Your task to perform on an android device: snooze an email in the gmail app Image 0: 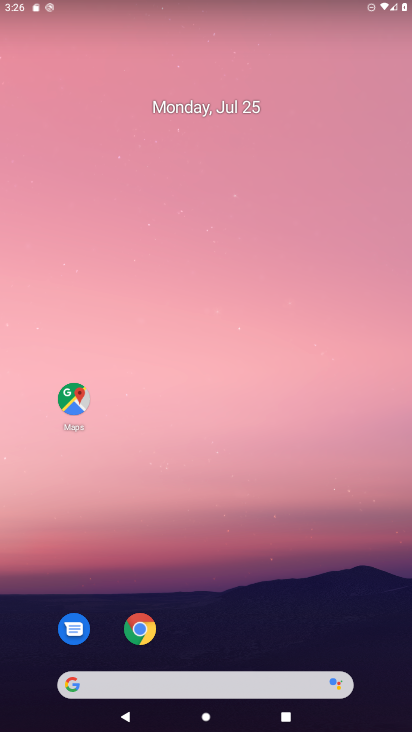
Step 0: click (334, 191)
Your task to perform on an android device: snooze an email in the gmail app Image 1: 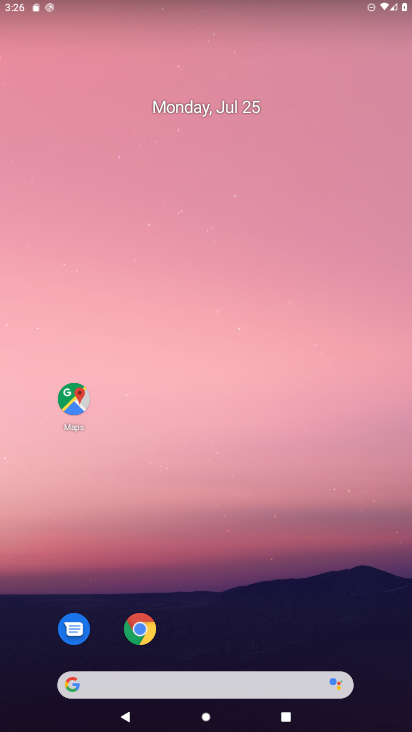
Step 1: drag from (295, 557) to (288, 10)
Your task to perform on an android device: snooze an email in the gmail app Image 2: 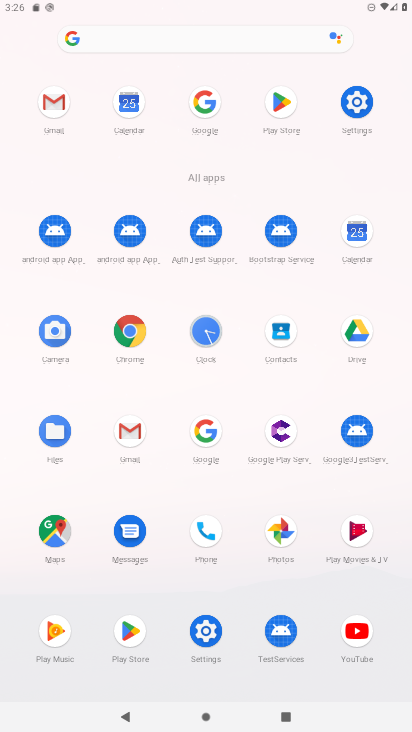
Step 2: click (51, 99)
Your task to perform on an android device: snooze an email in the gmail app Image 3: 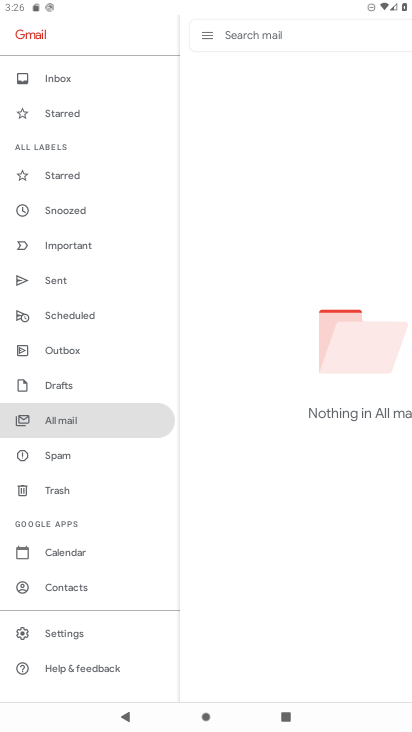
Step 3: click (97, 427)
Your task to perform on an android device: snooze an email in the gmail app Image 4: 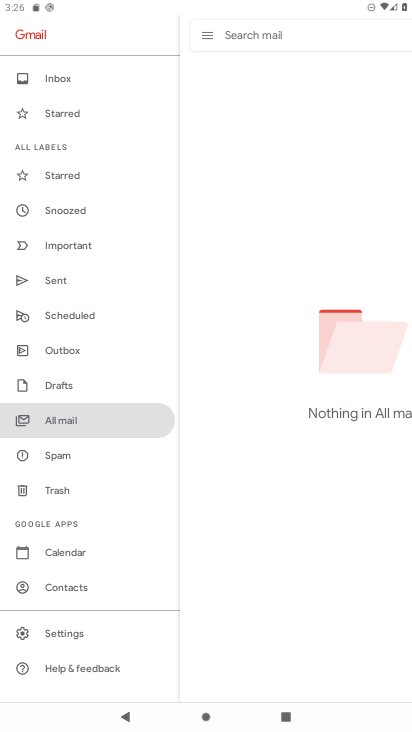
Step 4: task complete